Your task to perform on an android device: install app "Google Chat" Image 0: 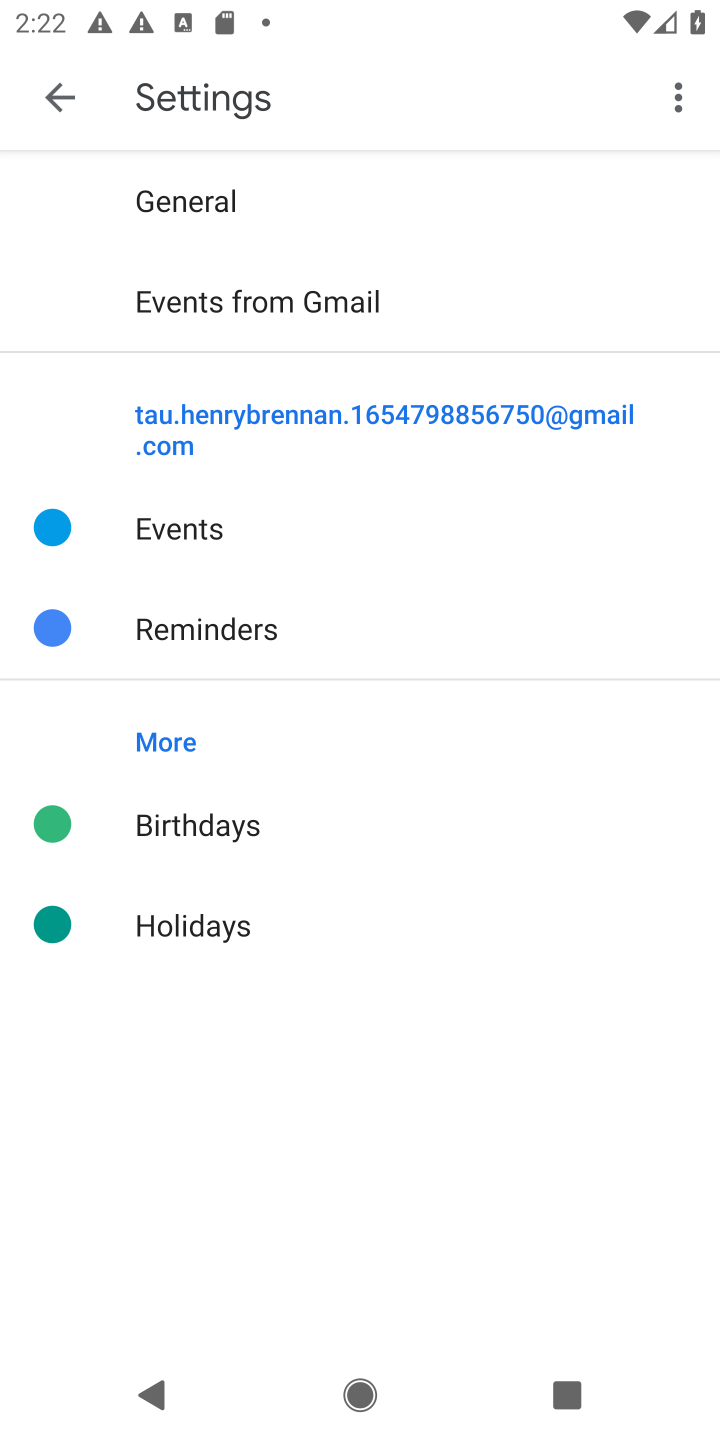
Step 0: press home button
Your task to perform on an android device: install app "Google Chat" Image 1: 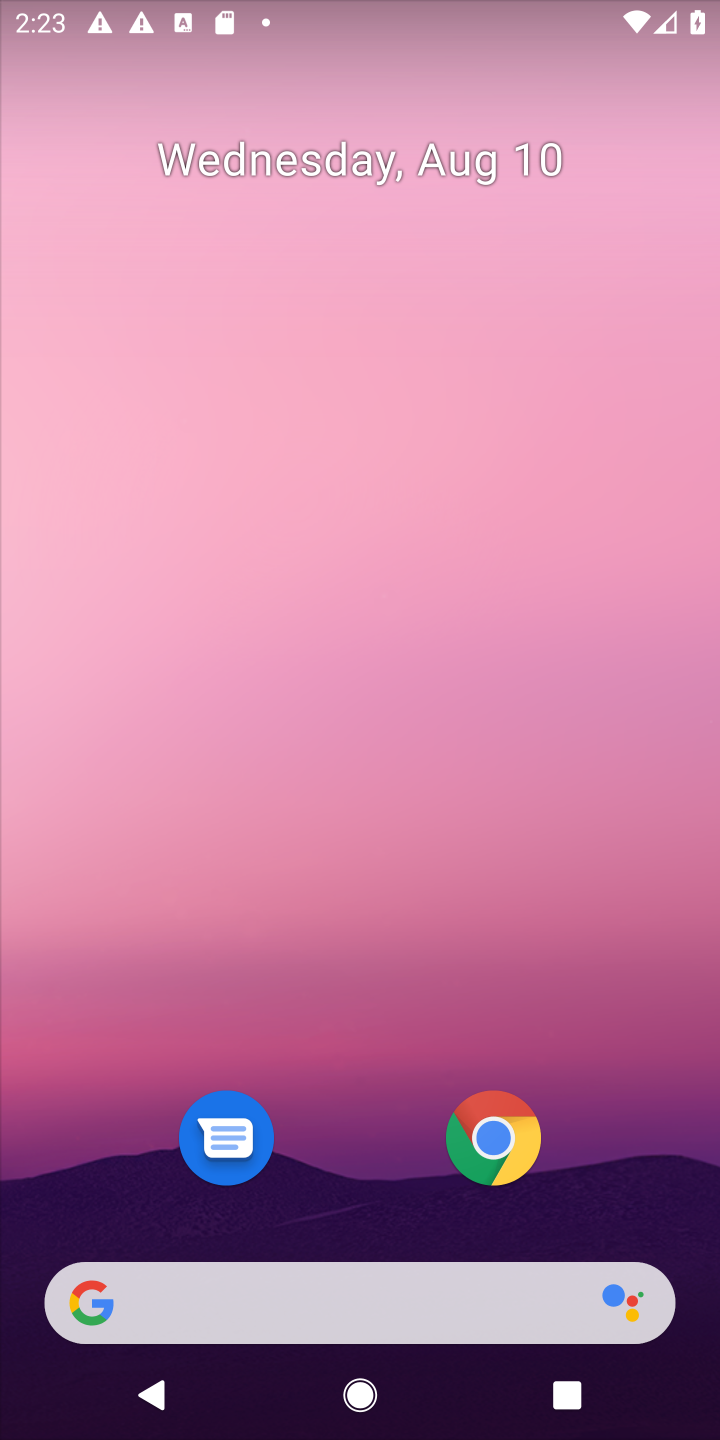
Step 1: drag from (601, 887) to (600, 106)
Your task to perform on an android device: install app "Google Chat" Image 2: 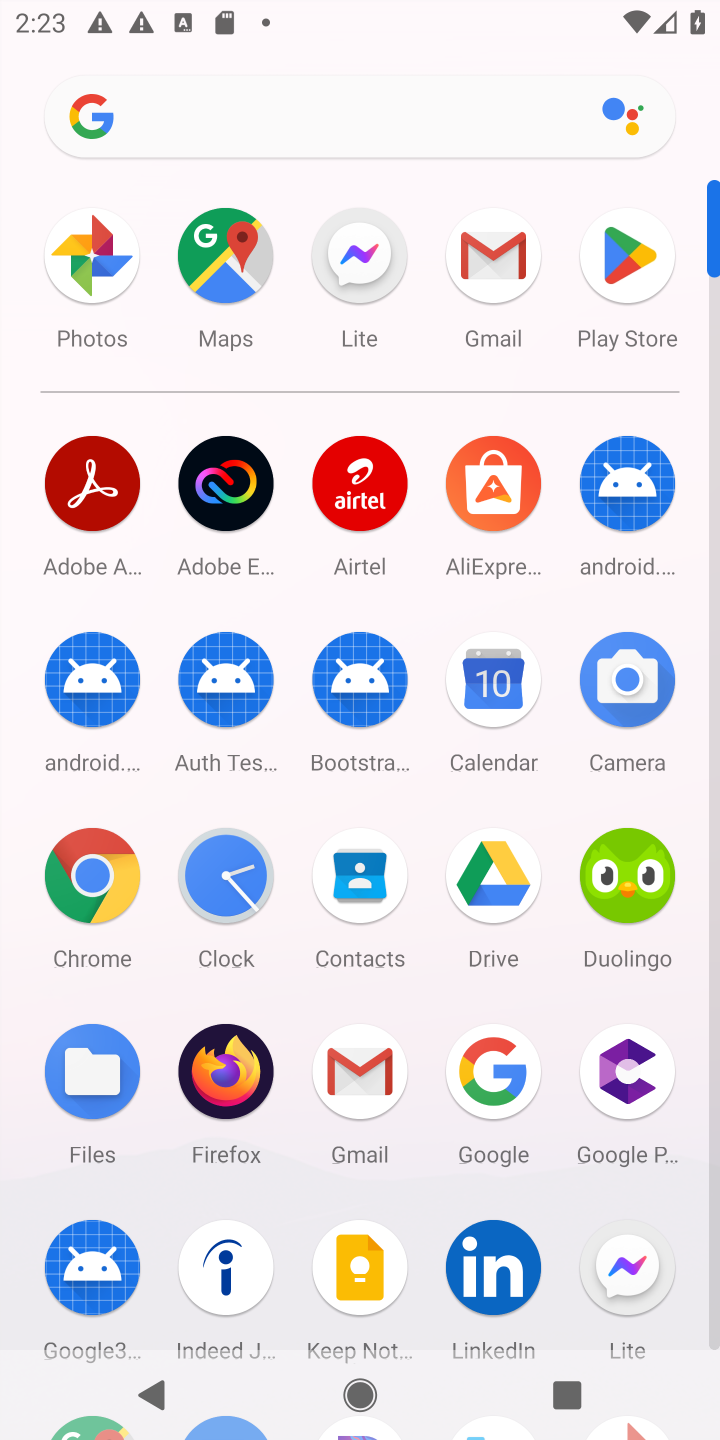
Step 2: click (618, 242)
Your task to perform on an android device: install app "Google Chat" Image 3: 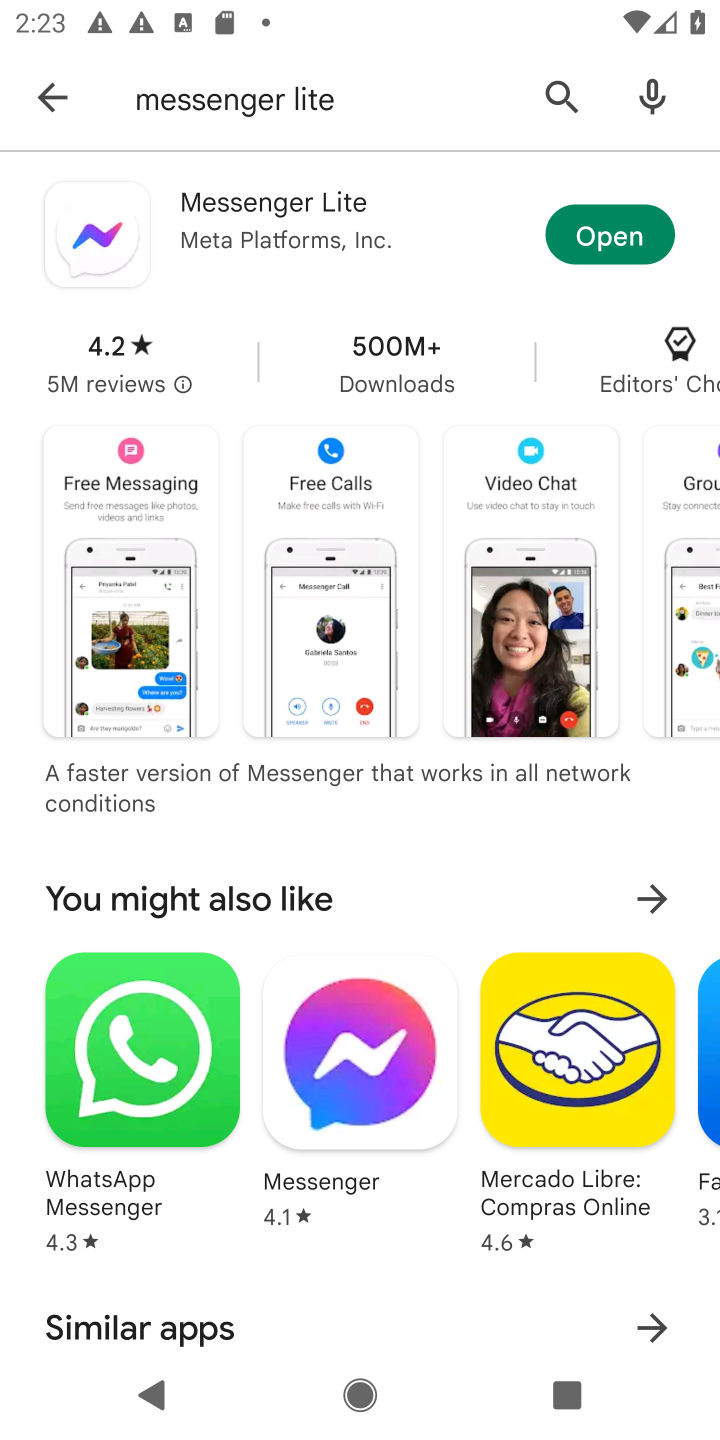
Step 3: click (557, 99)
Your task to perform on an android device: install app "Google Chat" Image 4: 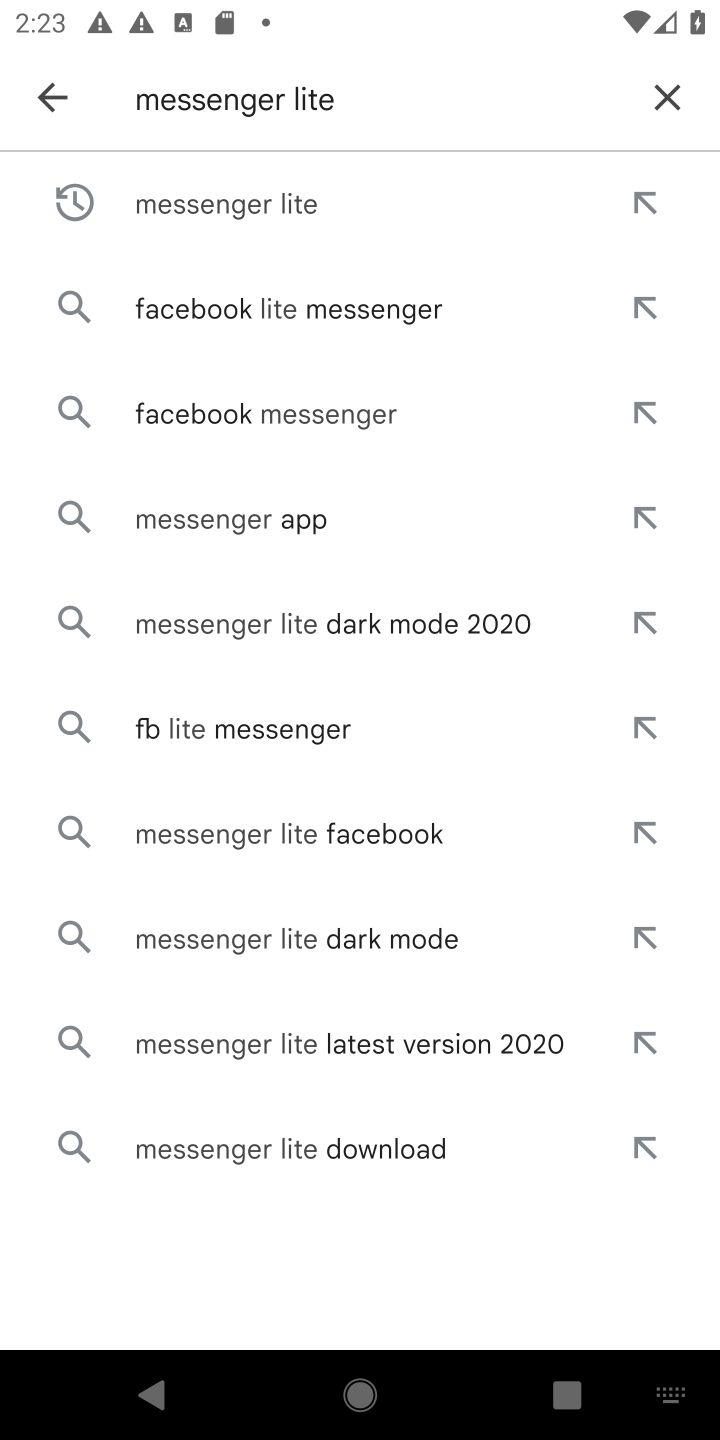
Step 4: click (665, 87)
Your task to perform on an android device: install app "Google Chat" Image 5: 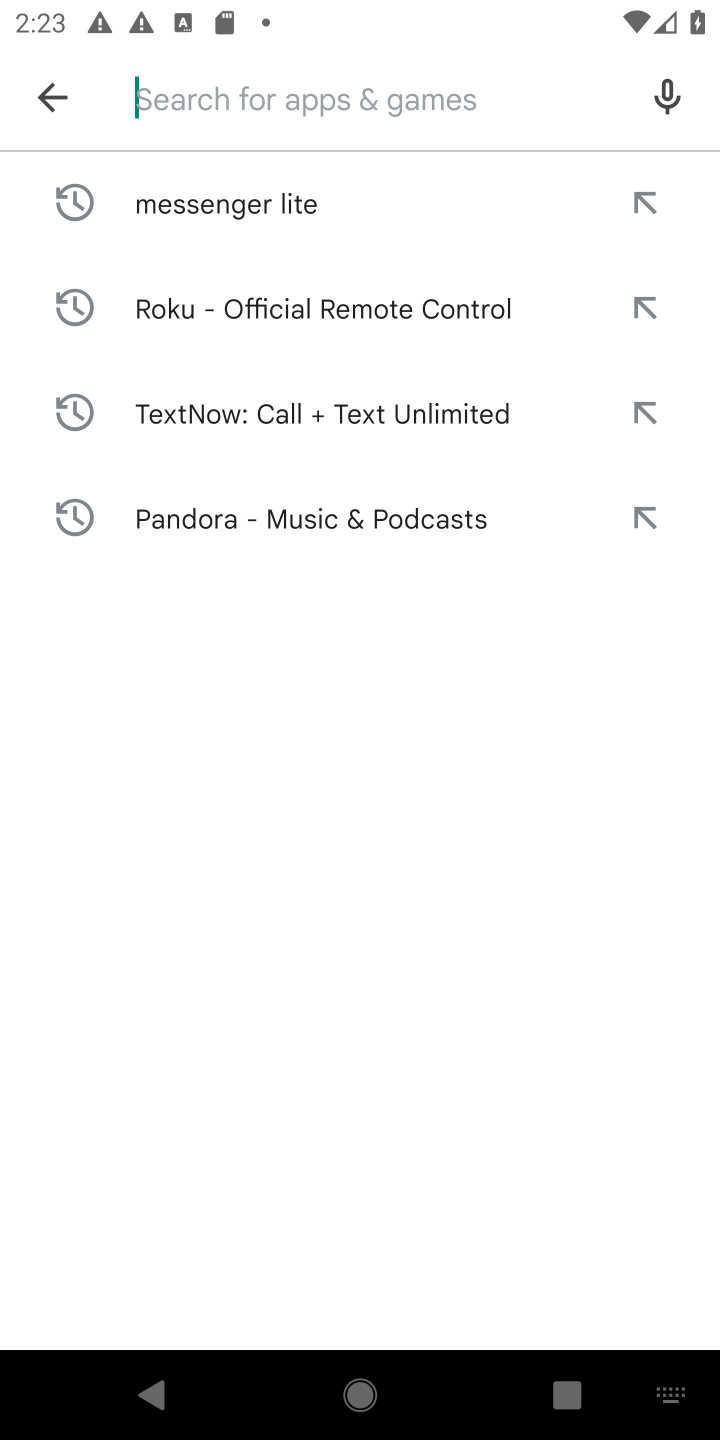
Step 5: press enter
Your task to perform on an android device: install app "Google Chat" Image 6: 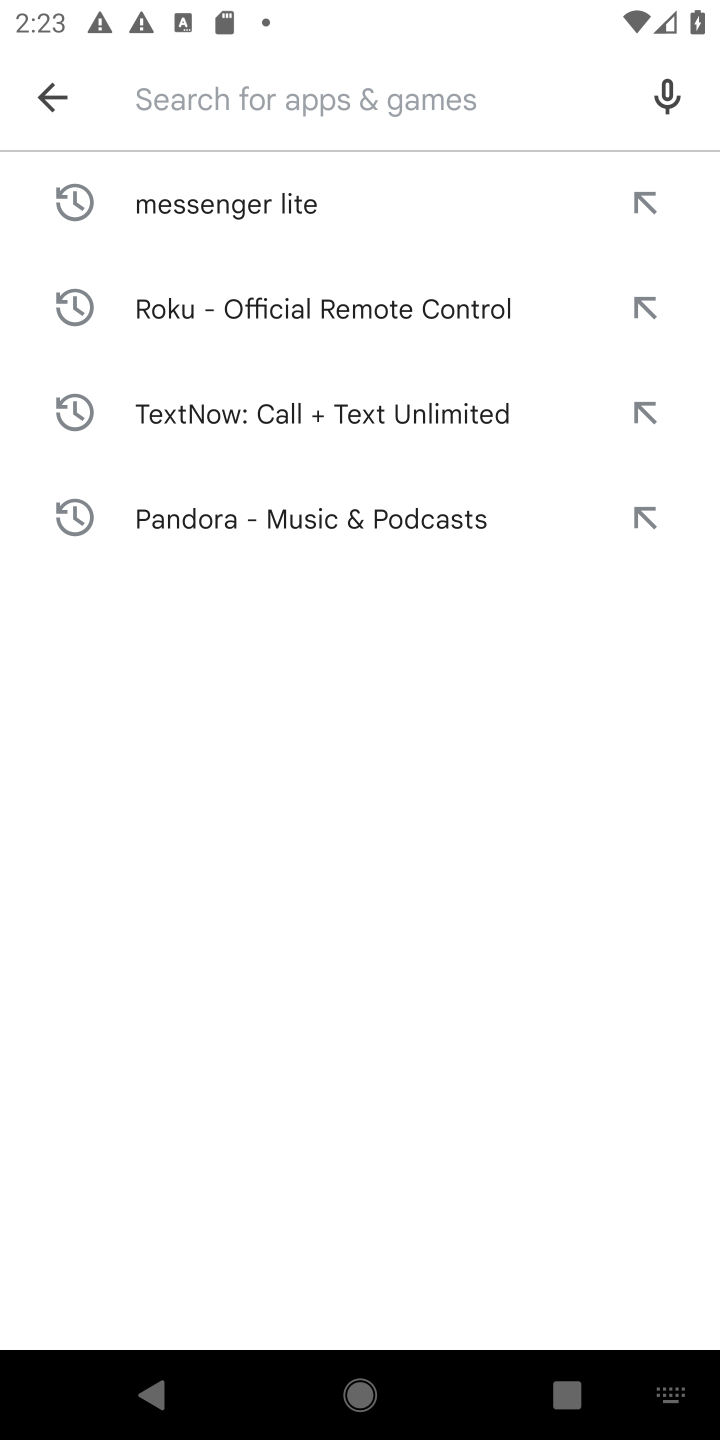
Step 6: type "google chat"
Your task to perform on an android device: install app "Google Chat" Image 7: 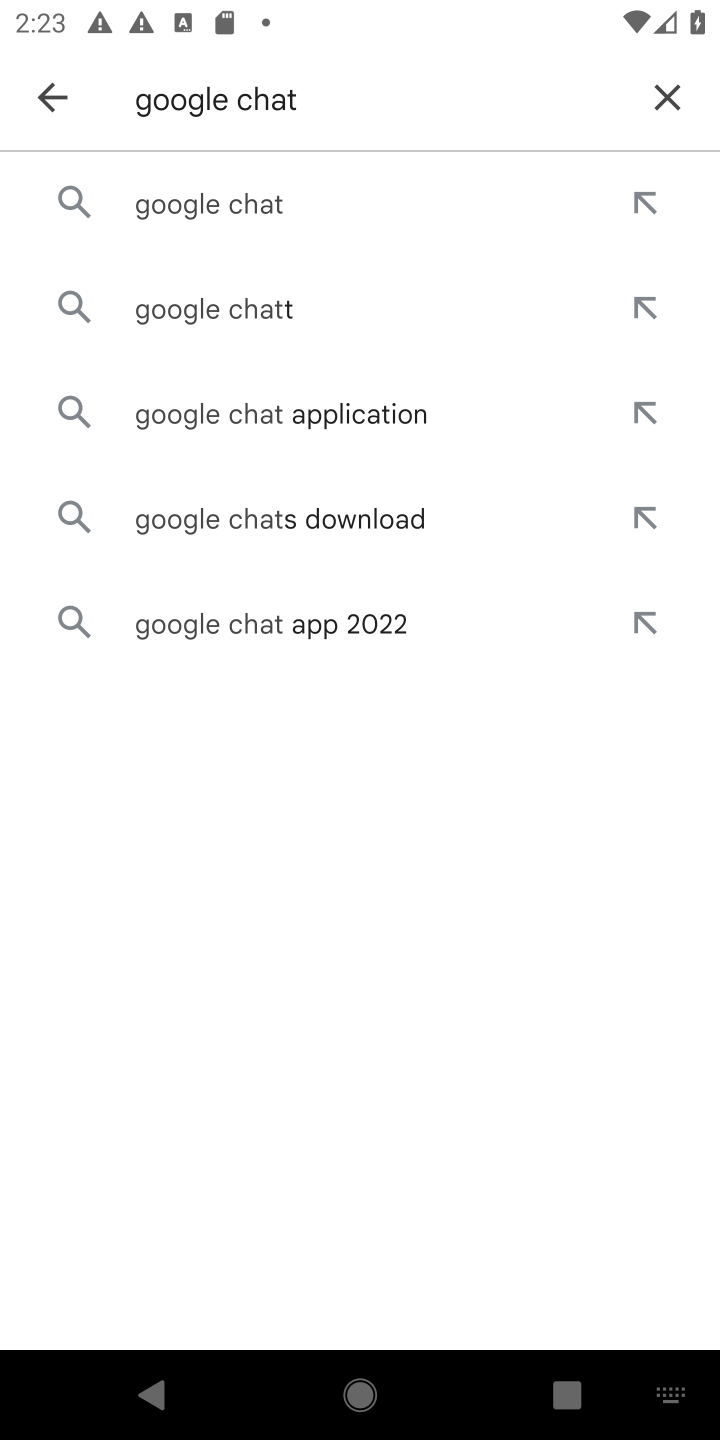
Step 7: click (284, 188)
Your task to perform on an android device: install app "Google Chat" Image 8: 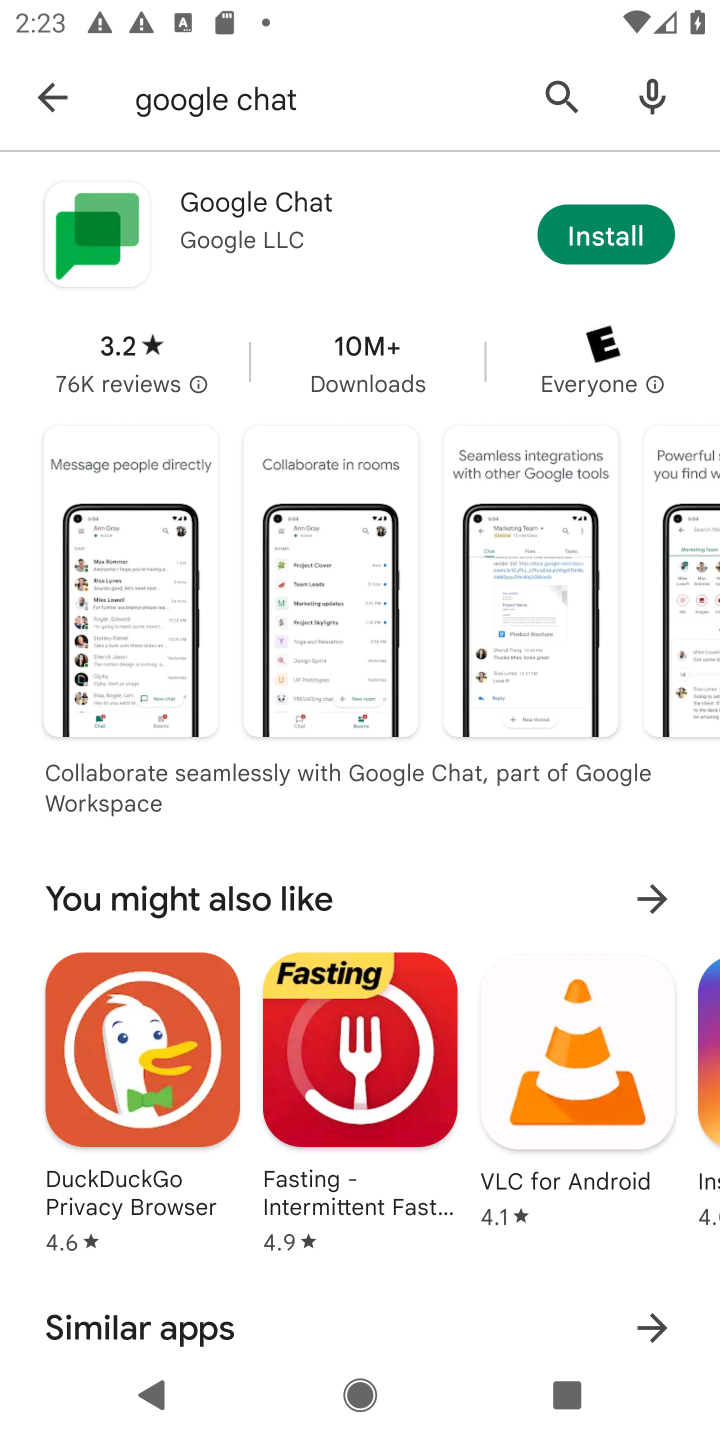
Step 8: click (619, 228)
Your task to perform on an android device: install app "Google Chat" Image 9: 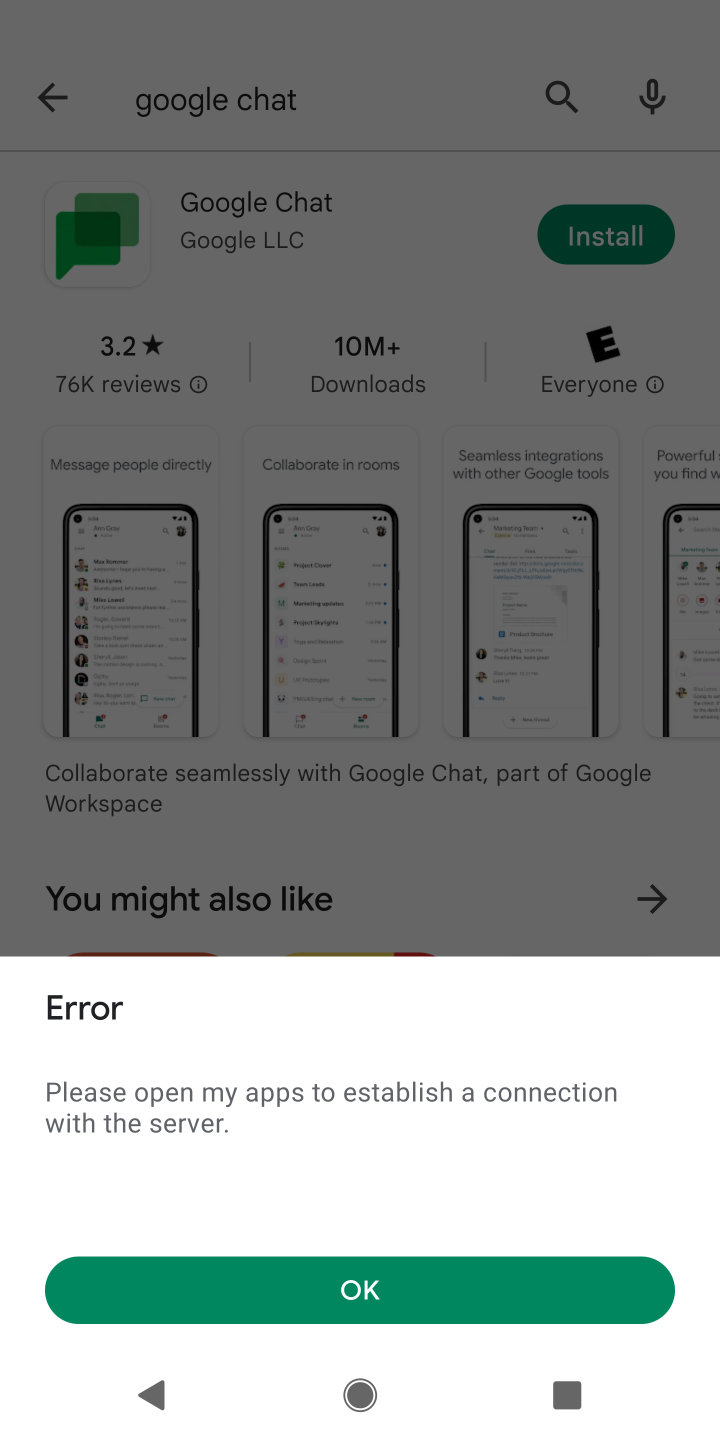
Step 9: task complete